Your task to perform on an android device: Go to network settings Image 0: 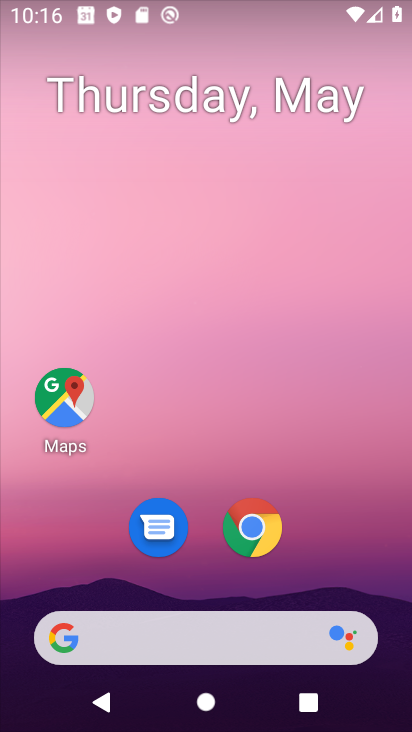
Step 0: drag from (233, 727) to (228, 137)
Your task to perform on an android device: Go to network settings Image 1: 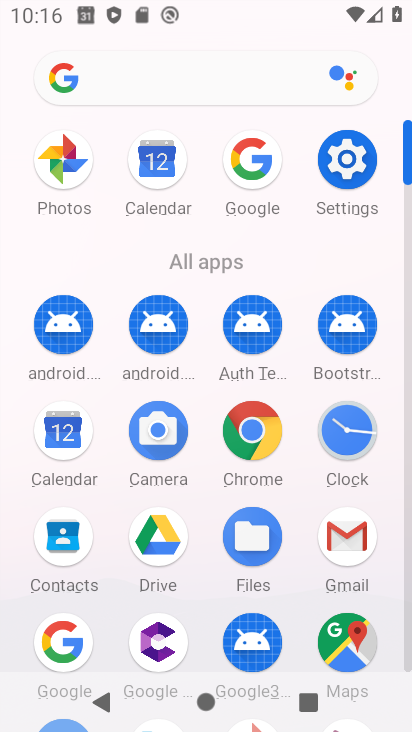
Step 1: click (341, 158)
Your task to perform on an android device: Go to network settings Image 2: 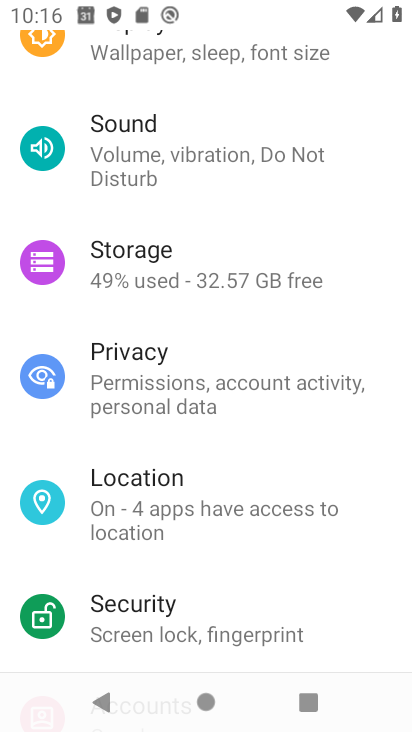
Step 2: drag from (248, 120) to (247, 502)
Your task to perform on an android device: Go to network settings Image 3: 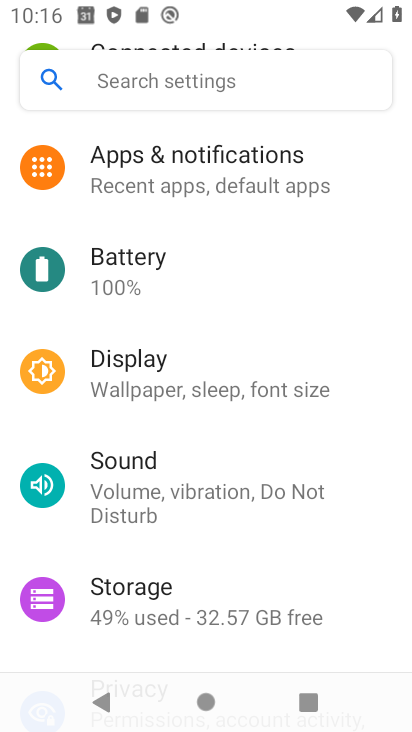
Step 3: drag from (284, 157) to (273, 440)
Your task to perform on an android device: Go to network settings Image 4: 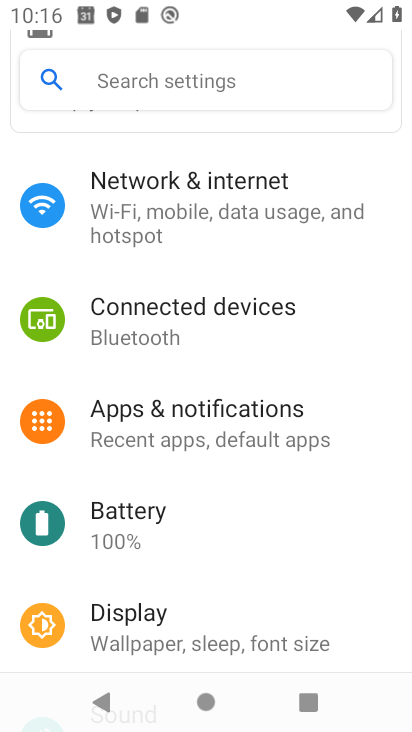
Step 4: click (237, 175)
Your task to perform on an android device: Go to network settings Image 5: 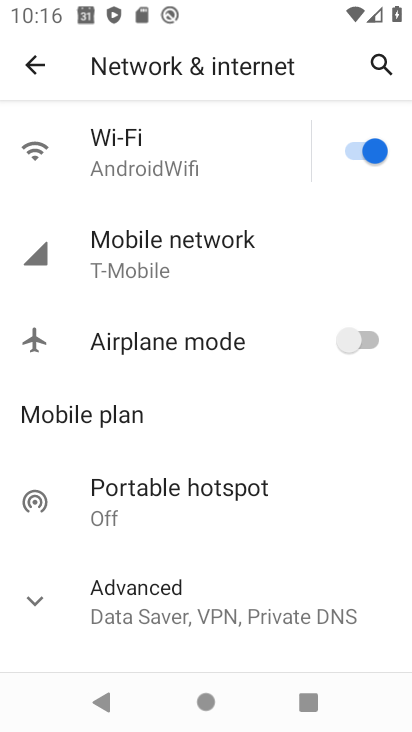
Step 5: click (153, 252)
Your task to perform on an android device: Go to network settings Image 6: 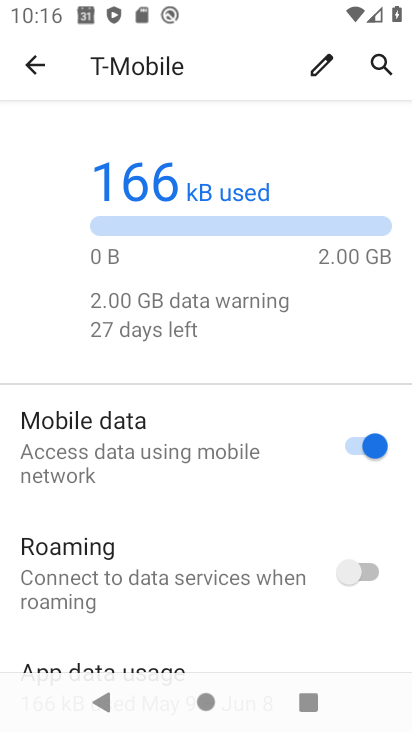
Step 6: task complete